Your task to perform on an android device: Open battery settings Image 0: 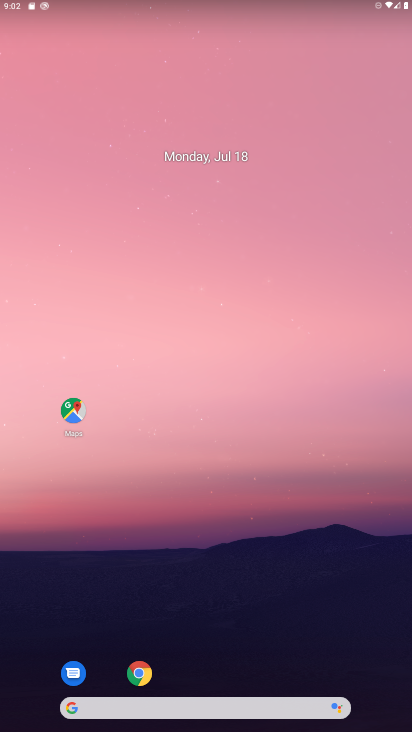
Step 0: press home button
Your task to perform on an android device: Open battery settings Image 1: 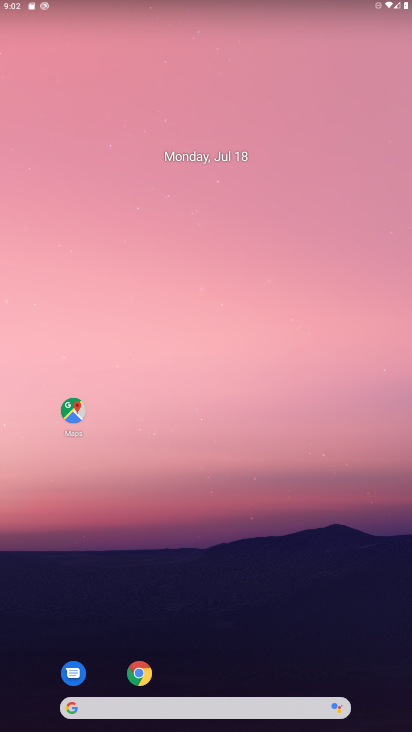
Step 1: drag from (241, 668) to (242, 7)
Your task to perform on an android device: Open battery settings Image 2: 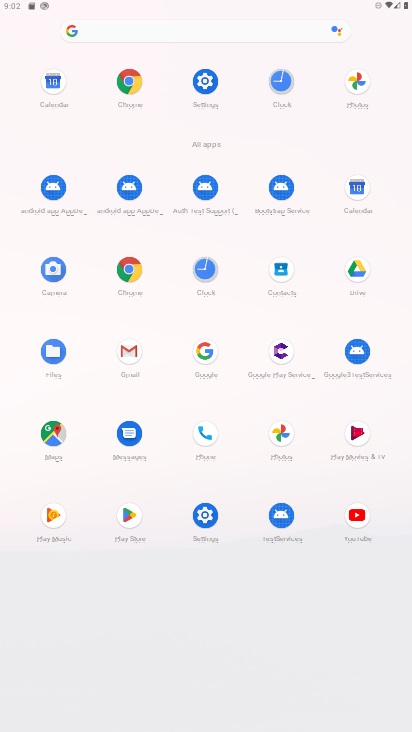
Step 2: click (203, 87)
Your task to perform on an android device: Open battery settings Image 3: 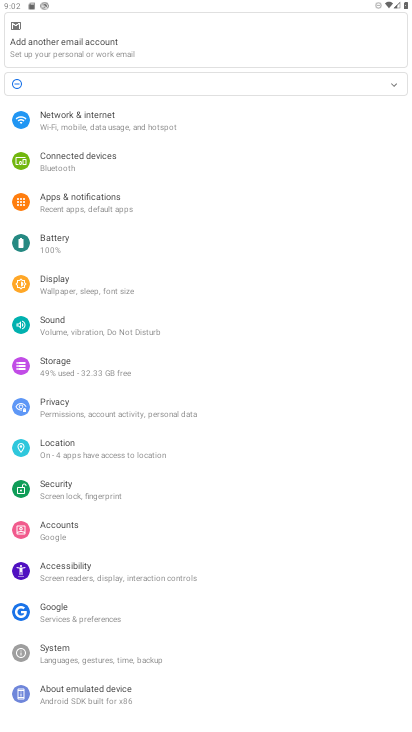
Step 3: click (54, 248)
Your task to perform on an android device: Open battery settings Image 4: 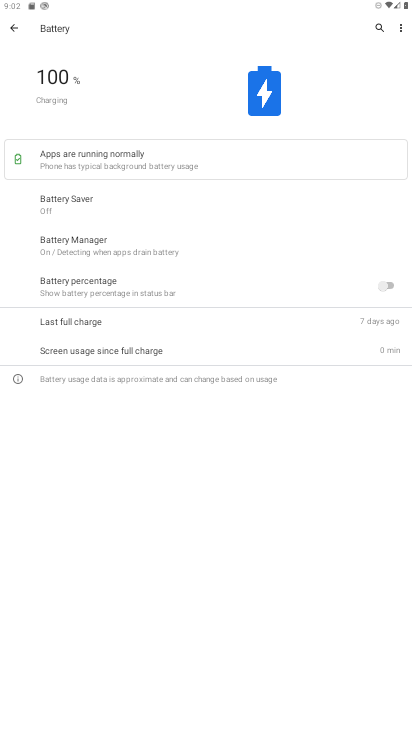
Step 4: task complete